Your task to perform on an android device: Open settings Image 0: 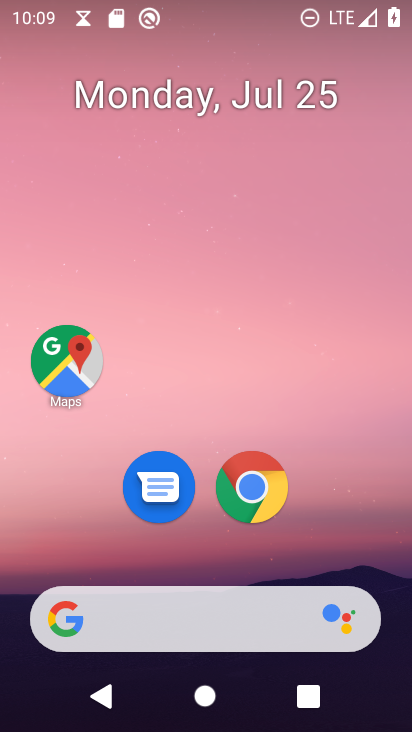
Step 0: drag from (111, 436) to (224, 33)
Your task to perform on an android device: Open settings Image 1: 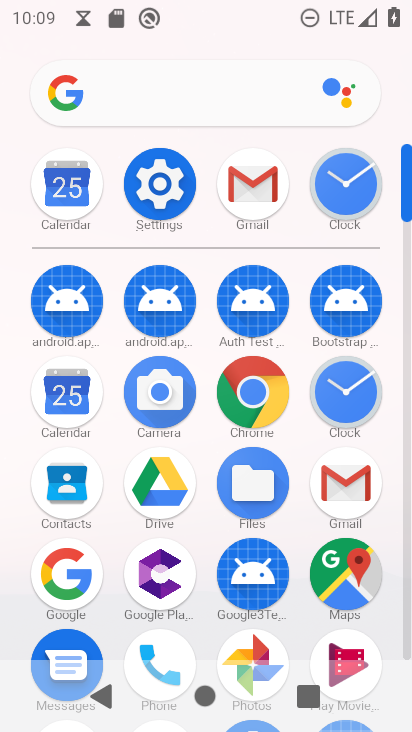
Step 1: click (156, 196)
Your task to perform on an android device: Open settings Image 2: 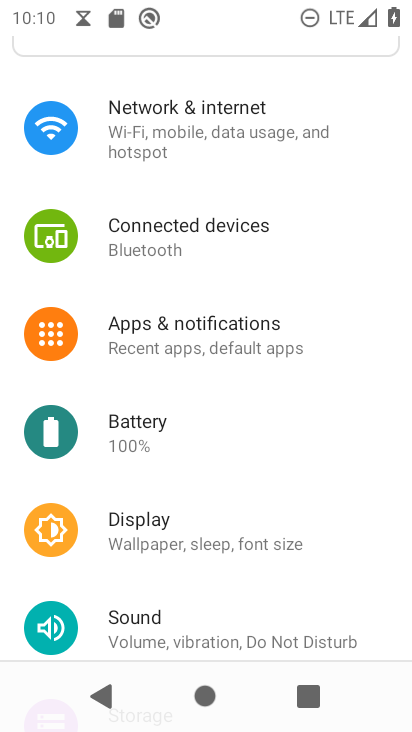
Step 2: task complete